Your task to perform on an android device: Open display settings Image 0: 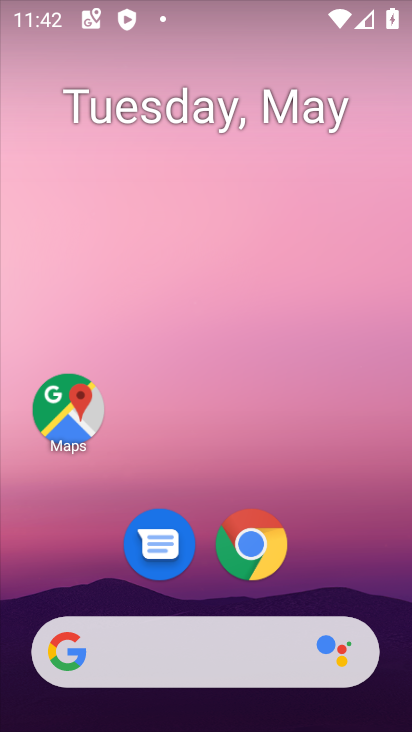
Step 0: click (127, 148)
Your task to perform on an android device: Open display settings Image 1: 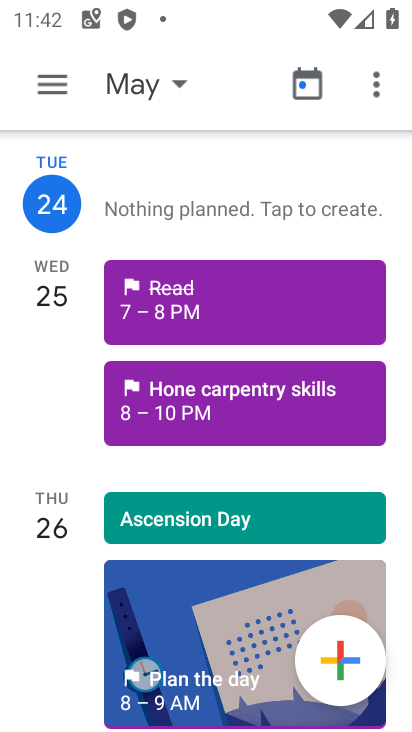
Step 1: drag from (358, 539) to (230, 87)
Your task to perform on an android device: Open display settings Image 2: 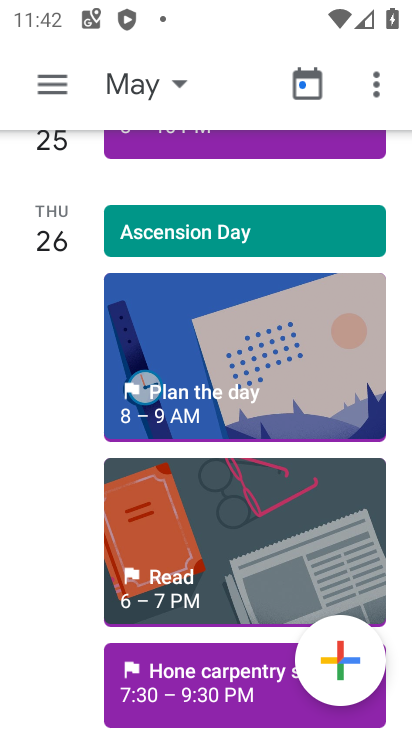
Step 2: press back button
Your task to perform on an android device: Open display settings Image 3: 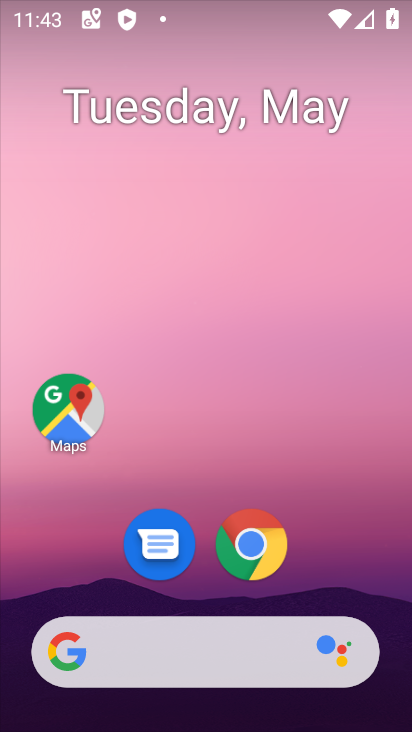
Step 3: drag from (362, 532) to (245, 92)
Your task to perform on an android device: Open display settings Image 4: 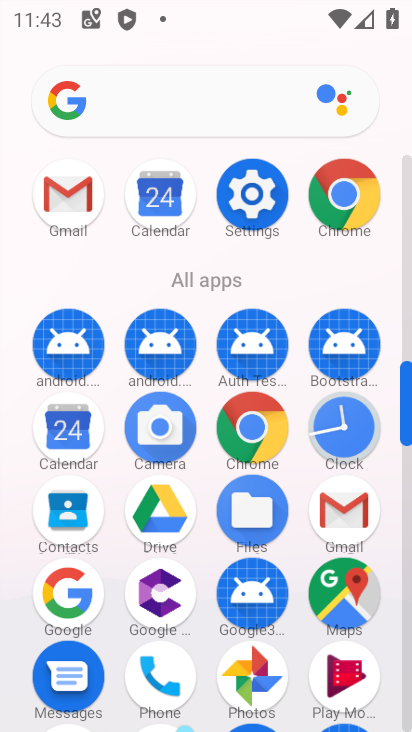
Step 4: click (246, 210)
Your task to perform on an android device: Open display settings Image 5: 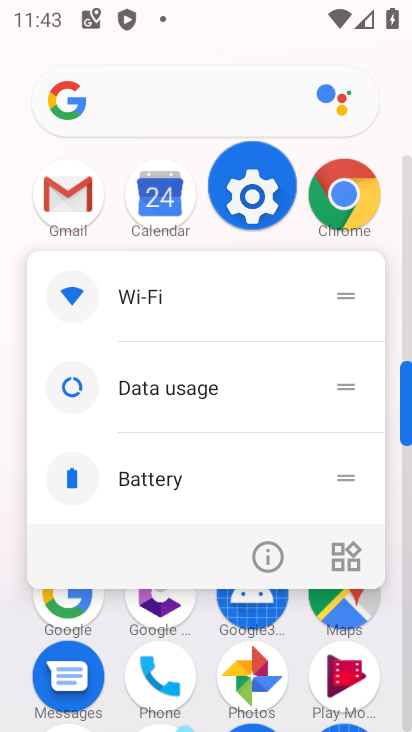
Step 5: click (248, 200)
Your task to perform on an android device: Open display settings Image 6: 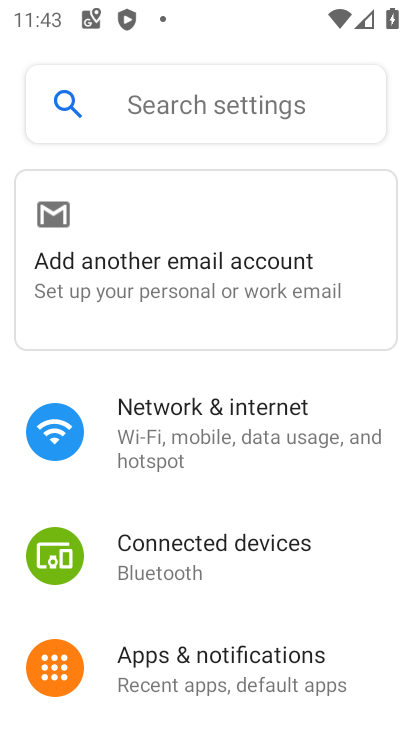
Step 6: drag from (224, 601) to (184, 268)
Your task to perform on an android device: Open display settings Image 7: 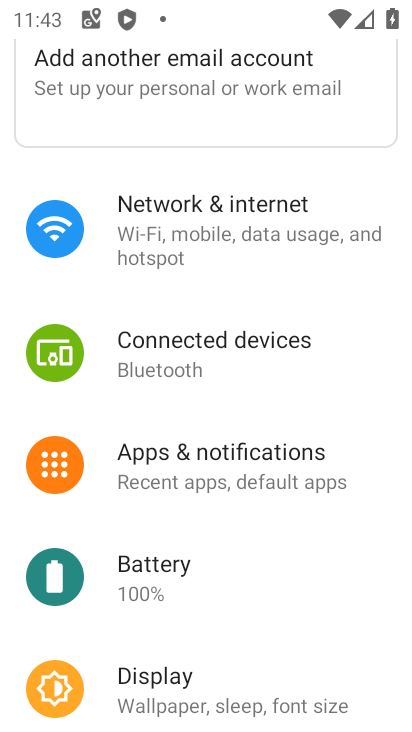
Step 7: drag from (248, 413) to (204, 118)
Your task to perform on an android device: Open display settings Image 8: 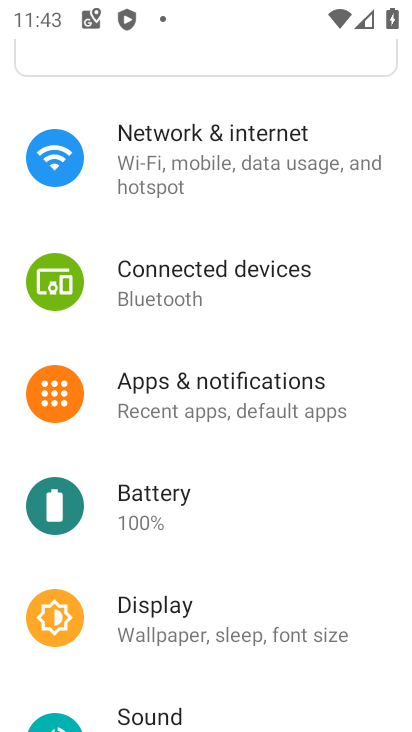
Step 8: click (159, 618)
Your task to perform on an android device: Open display settings Image 9: 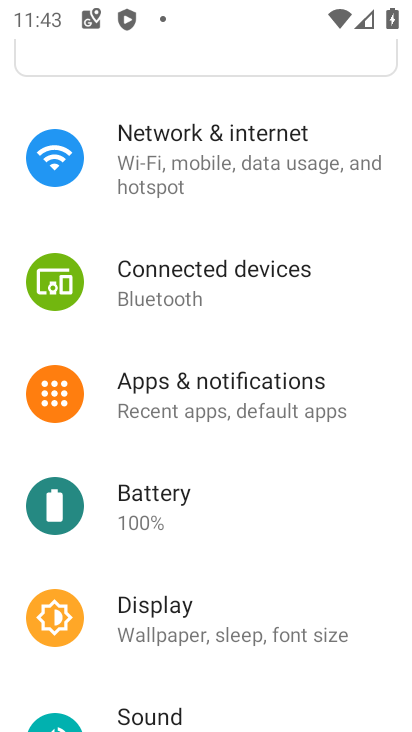
Step 9: click (159, 618)
Your task to perform on an android device: Open display settings Image 10: 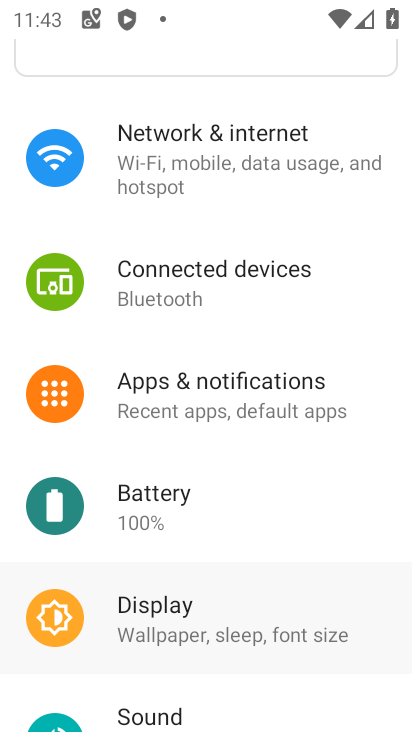
Step 10: click (161, 616)
Your task to perform on an android device: Open display settings Image 11: 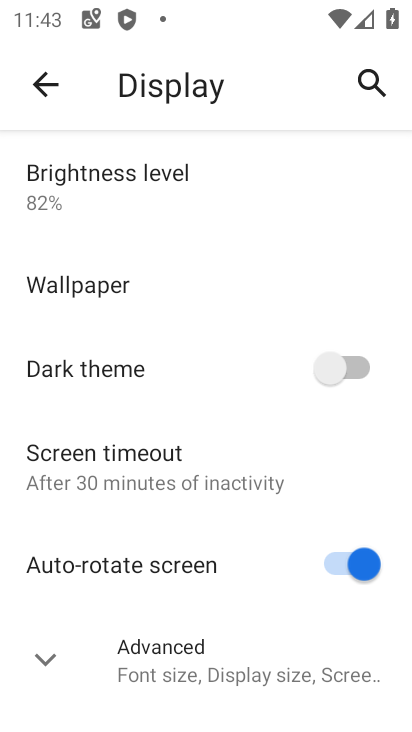
Step 11: task complete